Your task to perform on an android device: Search for seafood restaurants on Google Maps Image 0: 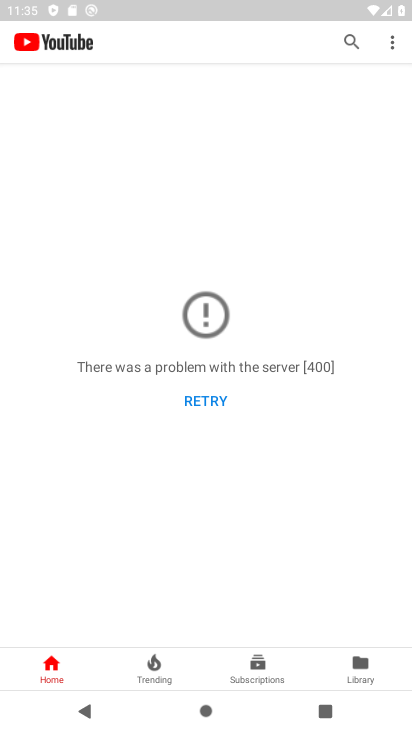
Step 0: press home button
Your task to perform on an android device: Search for seafood restaurants on Google Maps Image 1: 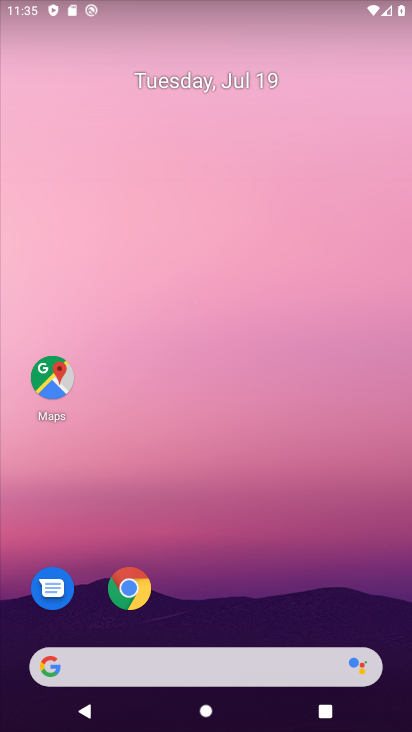
Step 1: drag from (233, 598) to (256, 179)
Your task to perform on an android device: Search for seafood restaurants on Google Maps Image 2: 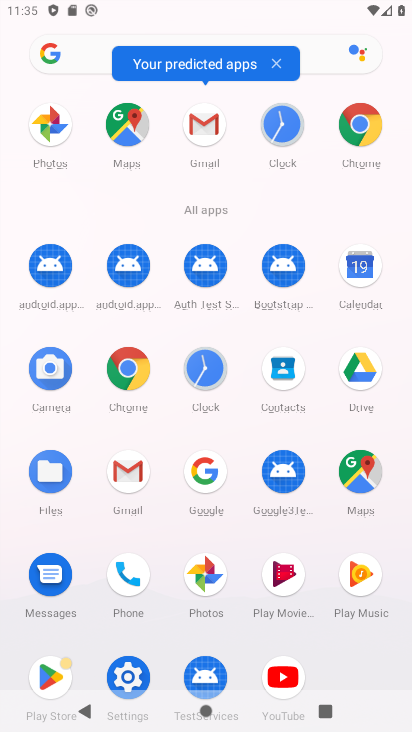
Step 2: click (361, 466)
Your task to perform on an android device: Search for seafood restaurants on Google Maps Image 3: 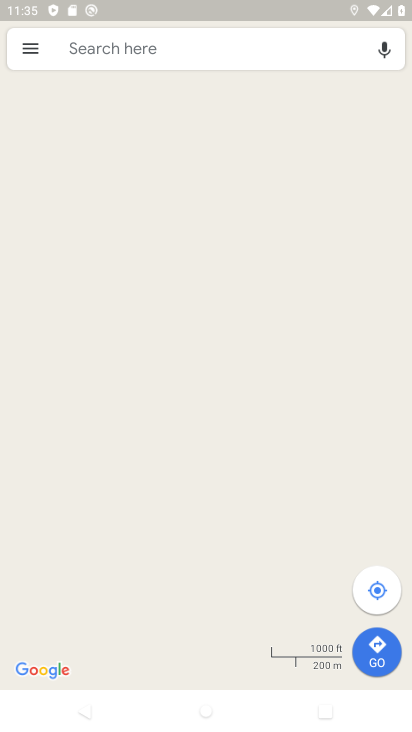
Step 3: click (259, 56)
Your task to perform on an android device: Search for seafood restaurants on Google Maps Image 4: 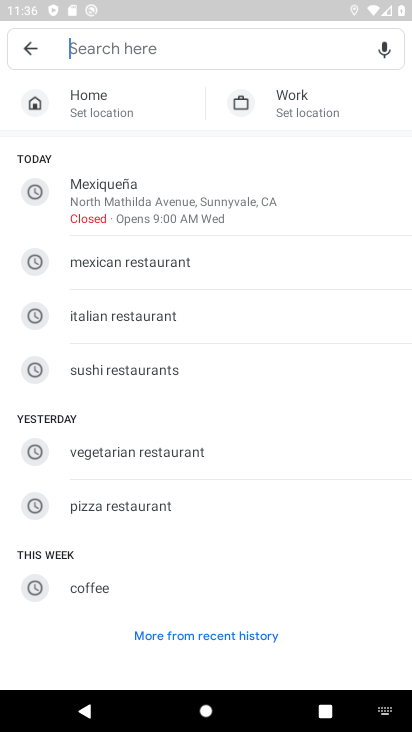
Step 4: type "seafood restaurants"
Your task to perform on an android device: Search for seafood restaurants on Google Maps Image 5: 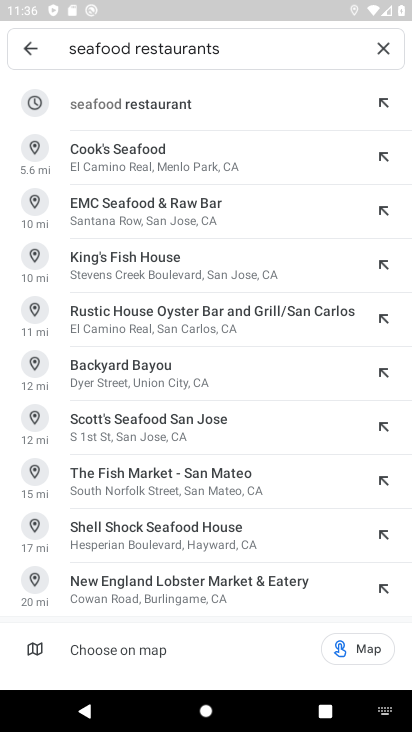
Step 5: click (155, 105)
Your task to perform on an android device: Search for seafood restaurants on Google Maps Image 6: 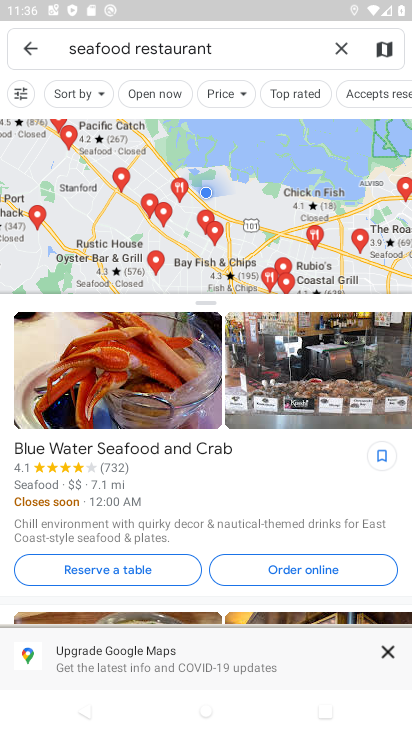
Step 6: task complete